Your task to perform on an android device: turn on priority inbox in the gmail app Image 0: 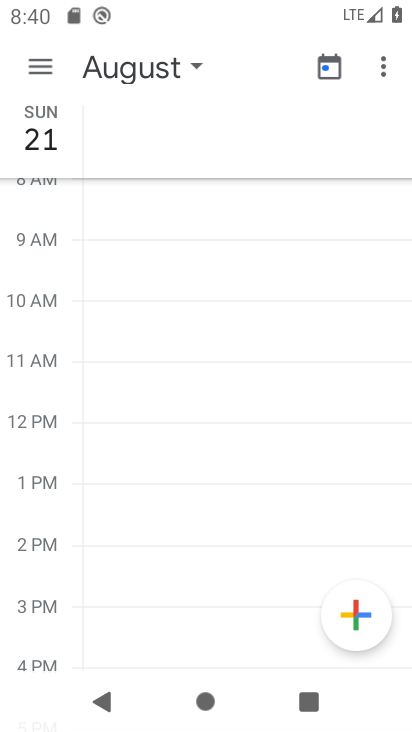
Step 0: press home button
Your task to perform on an android device: turn on priority inbox in the gmail app Image 1: 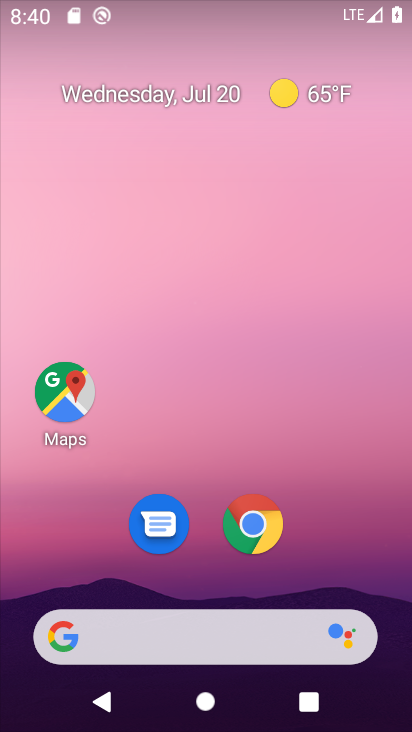
Step 1: drag from (329, 523) to (271, 55)
Your task to perform on an android device: turn on priority inbox in the gmail app Image 2: 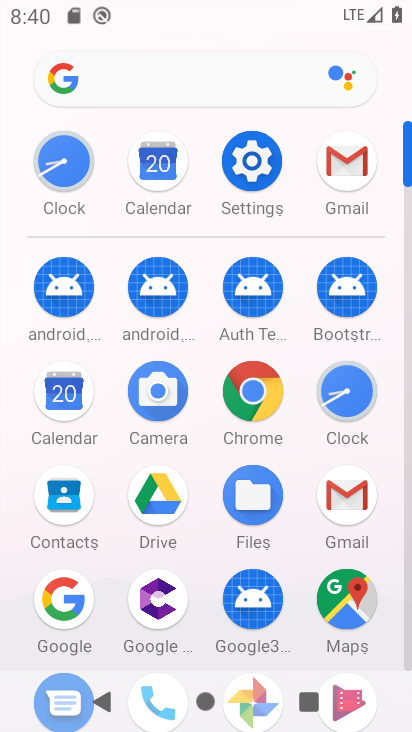
Step 2: click (344, 169)
Your task to perform on an android device: turn on priority inbox in the gmail app Image 3: 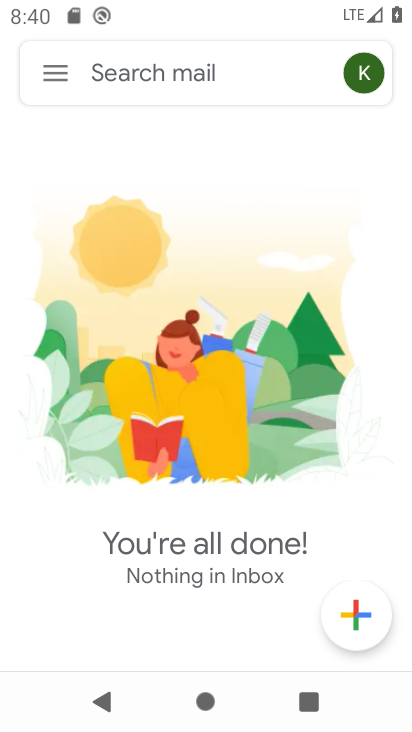
Step 3: click (57, 64)
Your task to perform on an android device: turn on priority inbox in the gmail app Image 4: 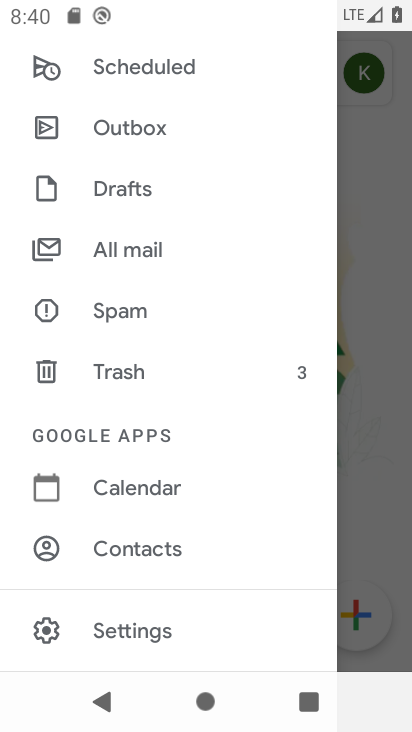
Step 4: click (101, 630)
Your task to perform on an android device: turn on priority inbox in the gmail app Image 5: 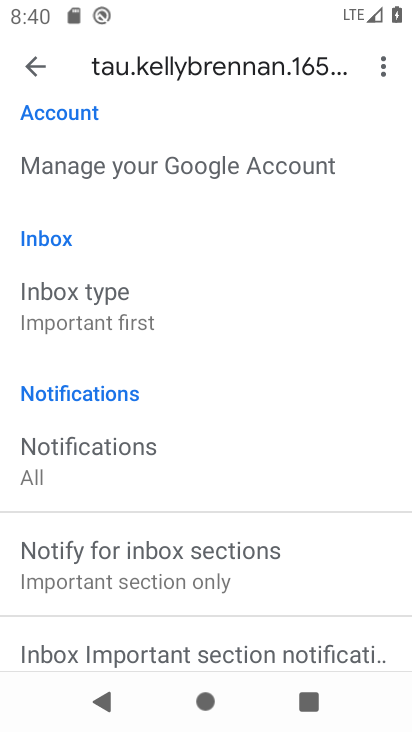
Step 5: drag from (236, 229) to (230, 407)
Your task to perform on an android device: turn on priority inbox in the gmail app Image 6: 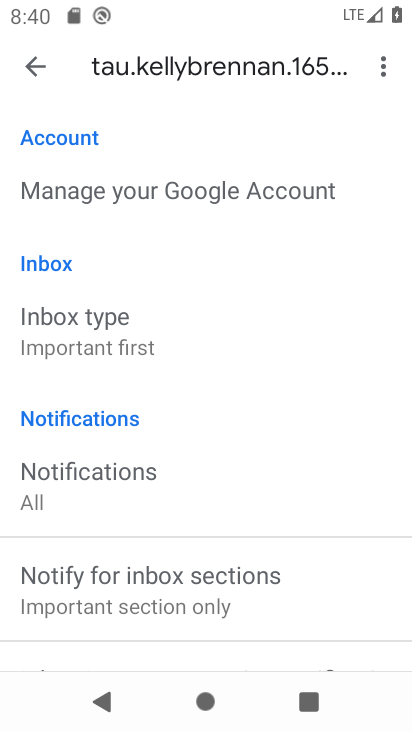
Step 6: click (133, 344)
Your task to perform on an android device: turn on priority inbox in the gmail app Image 7: 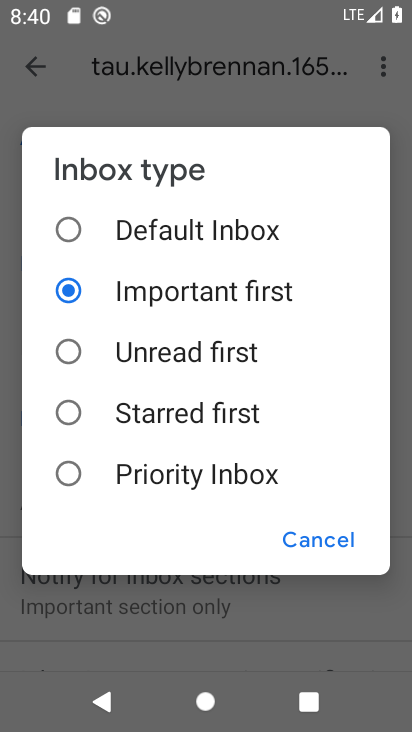
Step 7: click (67, 478)
Your task to perform on an android device: turn on priority inbox in the gmail app Image 8: 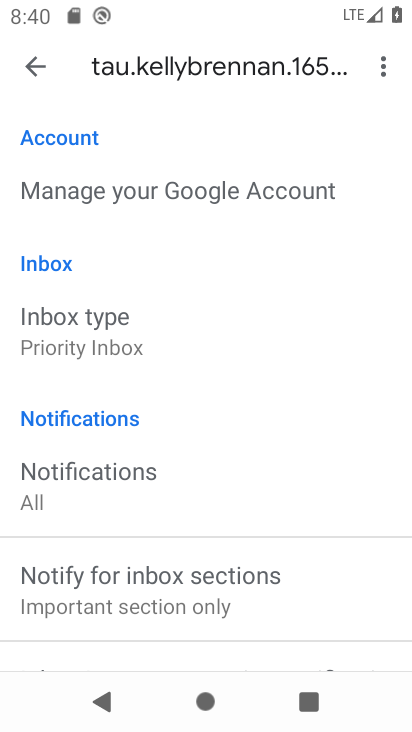
Step 8: task complete